Your task to perform on an android device: turn off improve location accuracy Image 0: 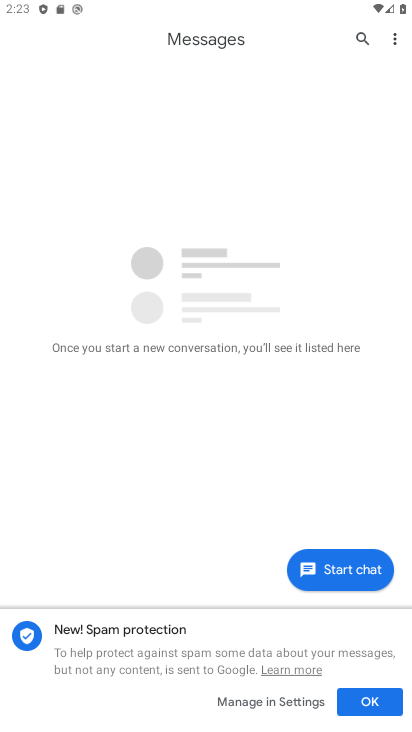
Step 0: press back button
Your task to perform on an android device: turn off improve location accuracy Image 1: 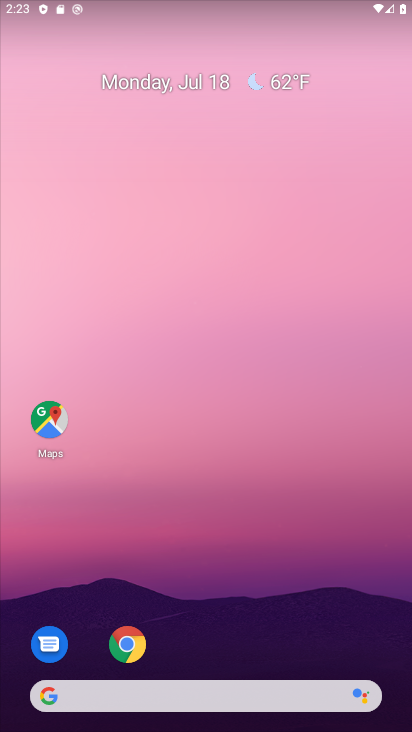
Step 1: drag from (230, 637) to (189, 246)
Your task to perform on an android device: turn off improve location accuracy Image 2: 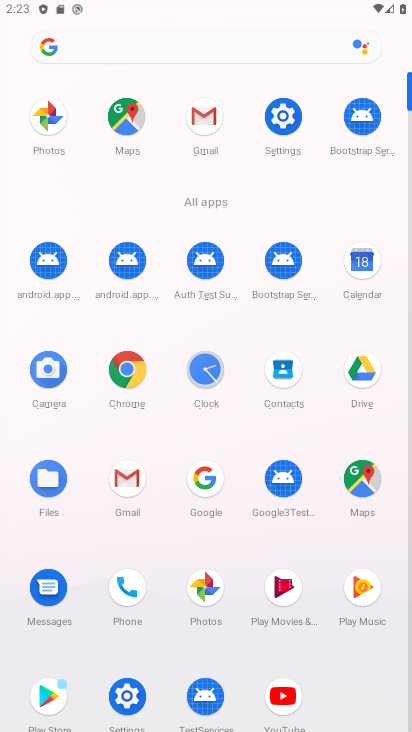
Step 2: click (297, 109)
Your task to perform on an android device: turn off improve location accuracy Image 3: 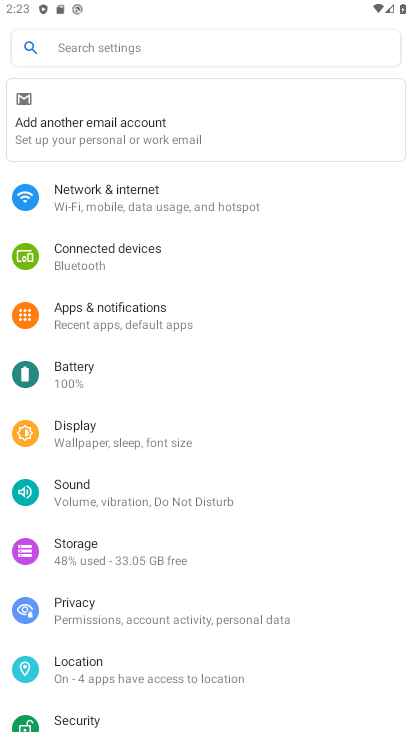
Step 3: click (75, 673)
Your task to perform on an android device: turn off improve location accuracy Image 4: 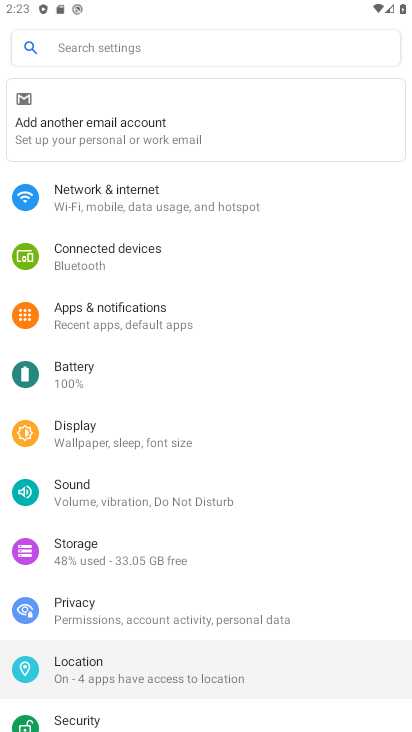
Step 4: click (78, 671)
Your task to perform on an android device: turn off improve location accuracy Image 5: 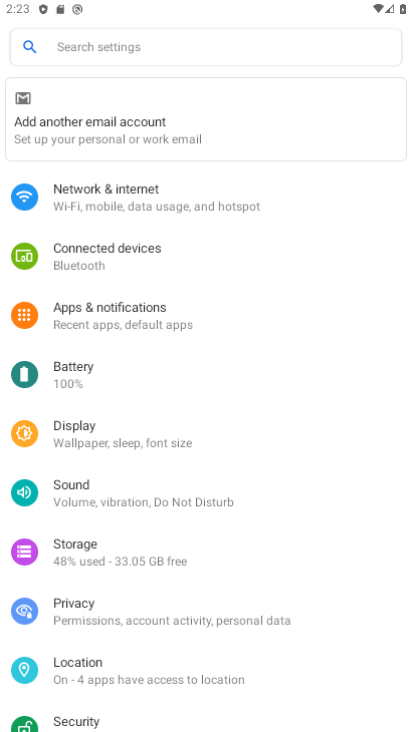
Step 5: click (82, 665)
Your task to perform on an android device: turn off improve location accuracy Image 6: 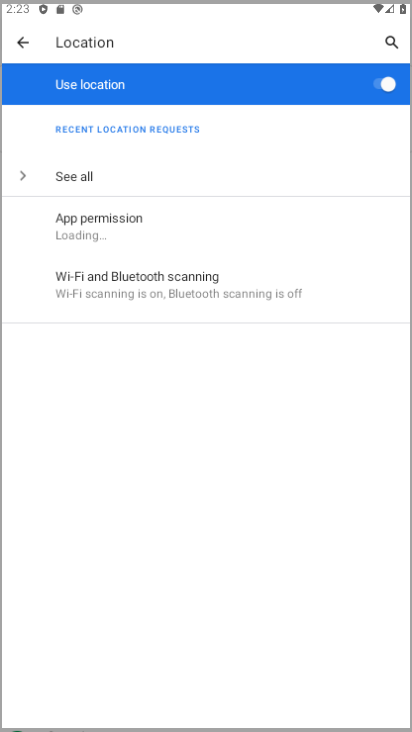
Step 6: click (83, 664)
Your task to perform on an android device: turn off improve location accuracy Image 7: 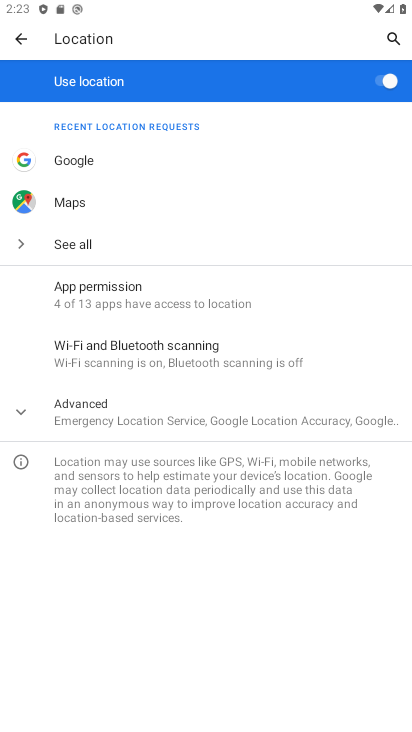
Step 7: click (82, 417)
Your task to perform on an android device: turn off improve location accuracy Image 8: 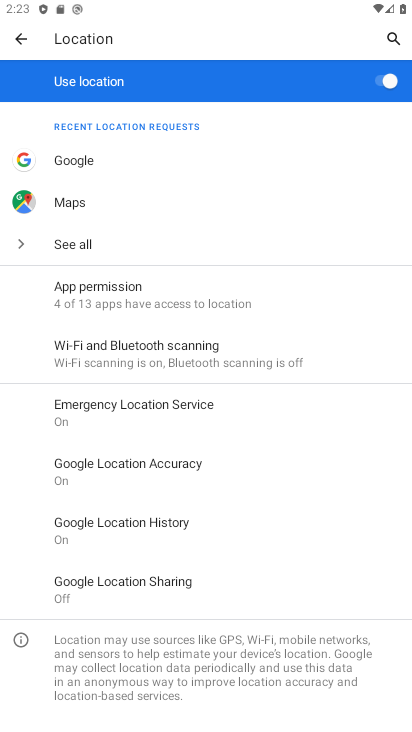
Step 8: click (113, 453)
Your task to perform on an android device: turn off improve location accuracy Image 9: 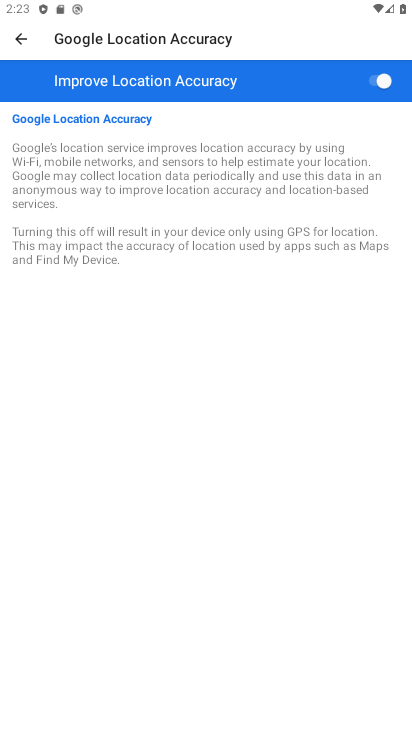
Step 9: click (371, 77)
Your task to perform on an android device: turn off improve location accuracy Image 10: 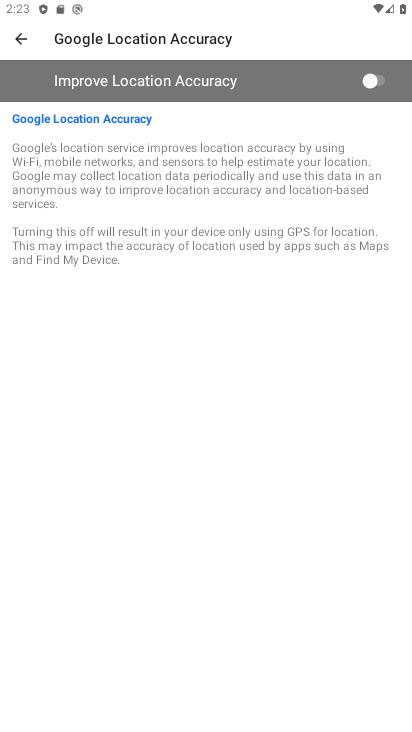
Step 10: task complete